Your task to perform on an android device: What's the weather today? Image 0: 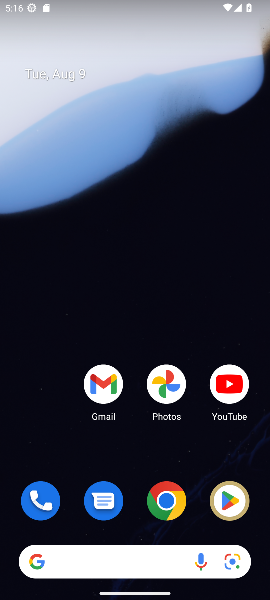
Step 0: drag from (86, 433) to (175, 33)
Your task to perform on an android device: What's the weather today? Image 1: 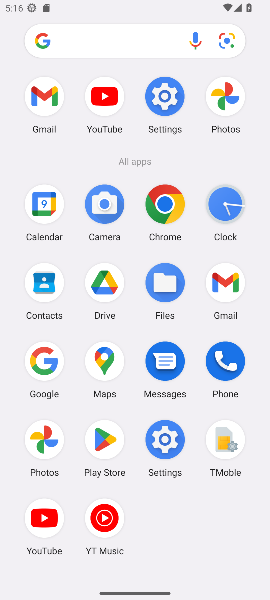
Step 1: click (81, 363)
Your task to perform on an android device: What's the weather today? Image 2: 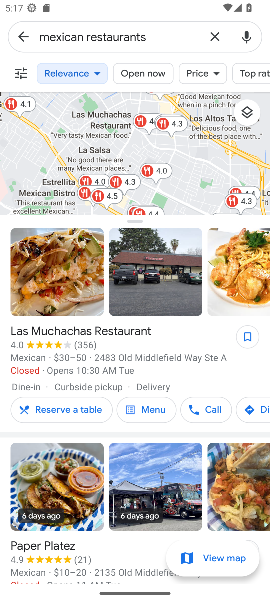
Step 2: press home button
Your task to perform on an android device: What's the weather today? Image 3: 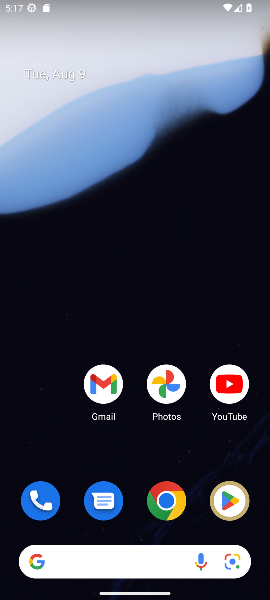
Step 3: drag from (159, 503) to (193, 258)
Your task to perform on an android device: What's the weather today? Image 4: 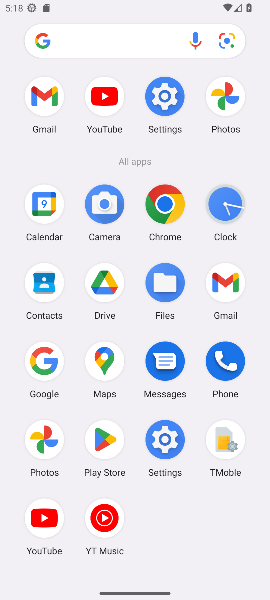
Step 4: click (36, 365)
Your task to perform on an android device: What's the weather today? Image 5: 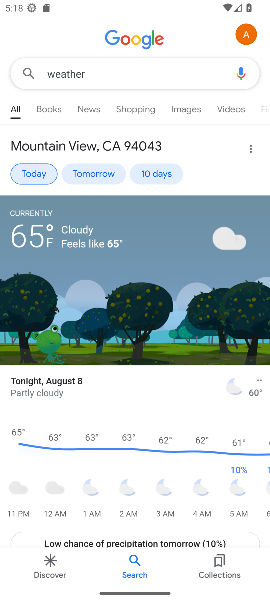
Step 5: task complete